Your task to perform on an android device: check the backup settings in the google photos Image 0: 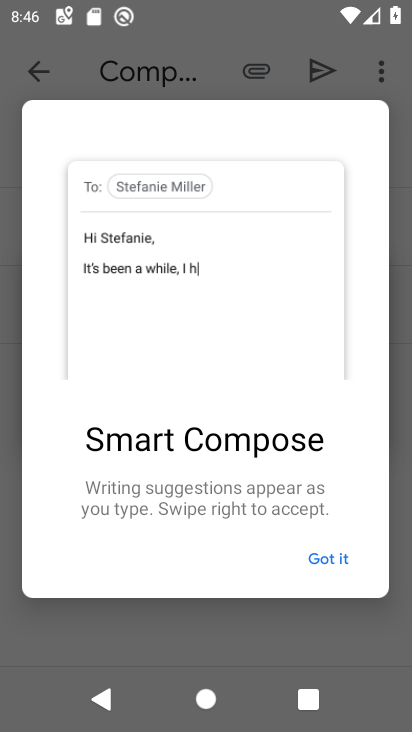
Step 0: press home button
Your task to perform on an android device: check the backup settings in the google photos Image 1: 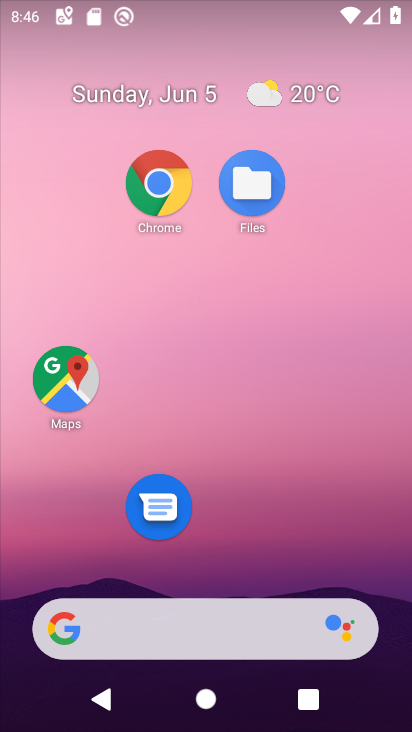
Step 1: drag from (238, 579) to (175, 16)
Your task to perform on an android device: check the backup settings in the google photos Image 2: 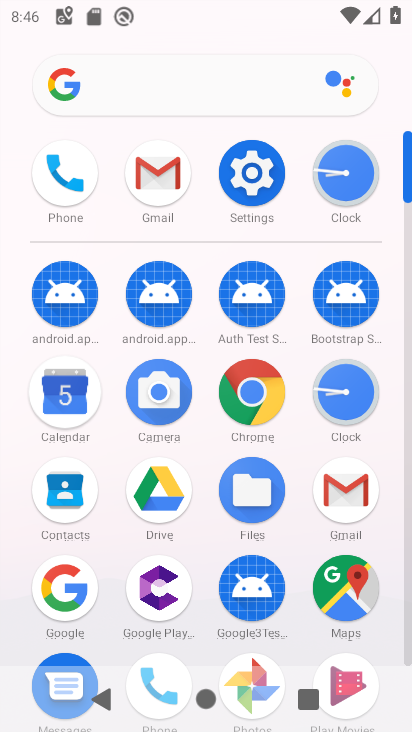
Step 2: drag from (205, 547) to (164, 45)
Your task to perform on an android device: check the backup settings in the google photos Image 3: 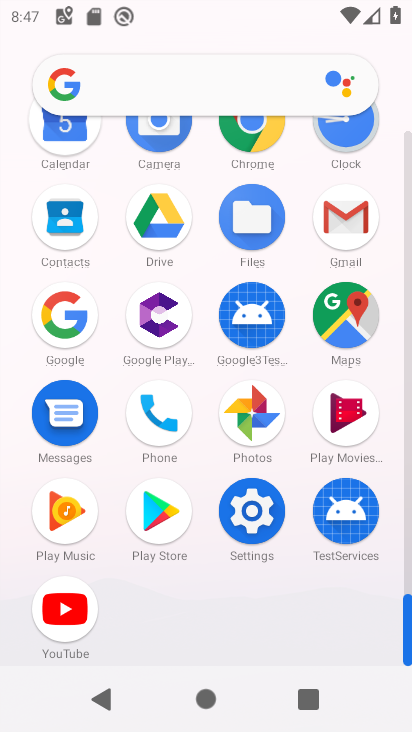
Step 3: click (263, 403)
Your task to perform on an android device: check the backup settings in the google photos Image 4: 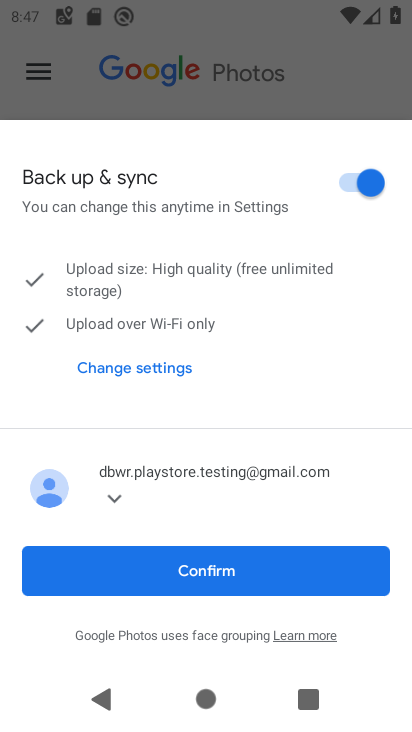
Step 4: click (319, 564)
Your task to perform on an android device: check the backup settings in the google photos Image 5: 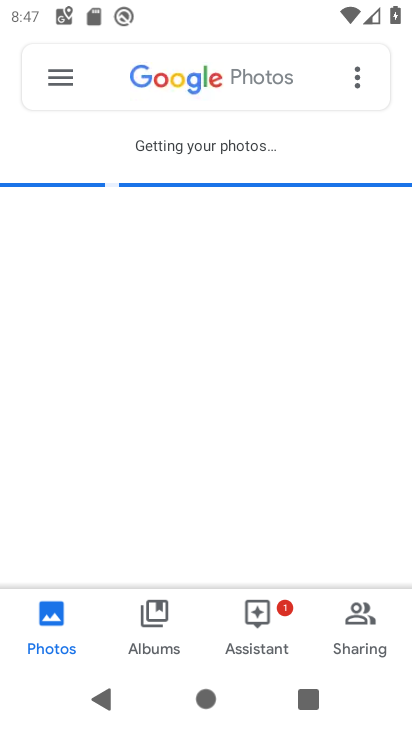
Step 5: click (60, 75)
Your task to perform on an android device: check the backup settings in the google photos Image 6: 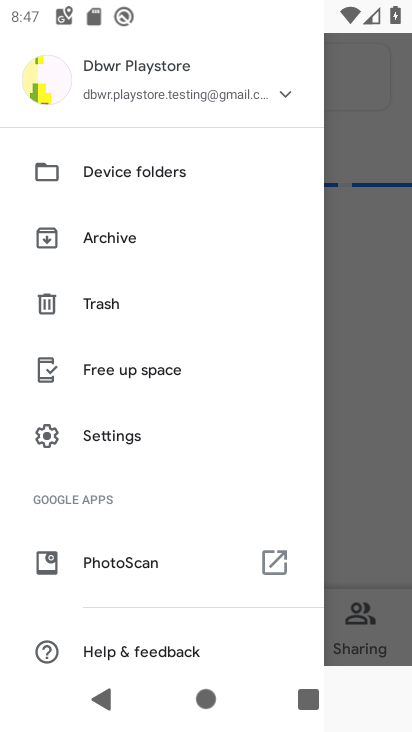
Step 6: click (107, 449)
Your task to perform on an android device: check the backup settings in the google photos Image 7: 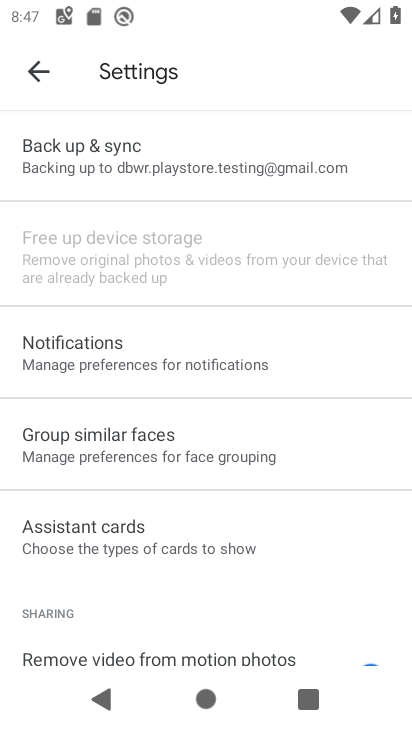
Step 7: click (140, 177)
Your task to perform on an android device: check the backup settings in the google photos Image 8: 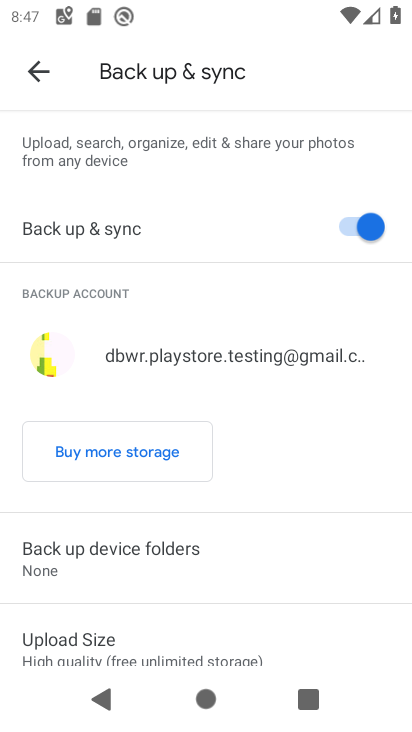
Step 8: task complete